Your task to perform on an android device: Go to accessibility settings Image 0: 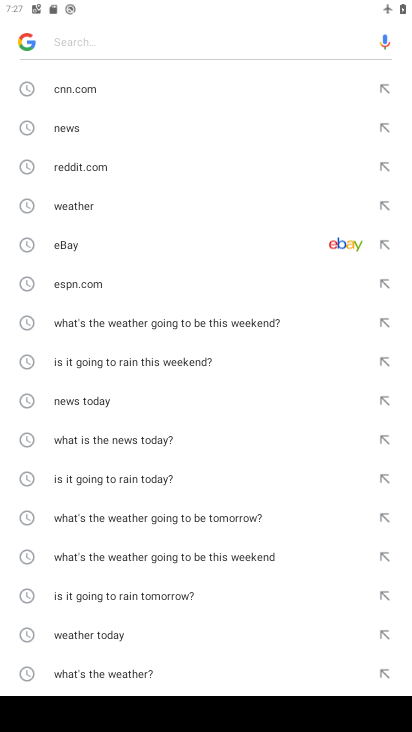
Step 0: press home button
Your task to perform on an android device: Go to accessibility settings Image 1: 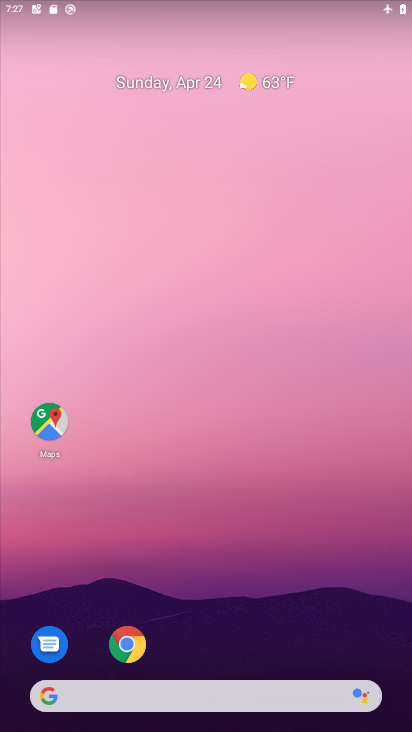
Step 1: drag from (221, 669) to (241, 104)
Your task to perform on an android device: Go to accessibility settings Image 2: 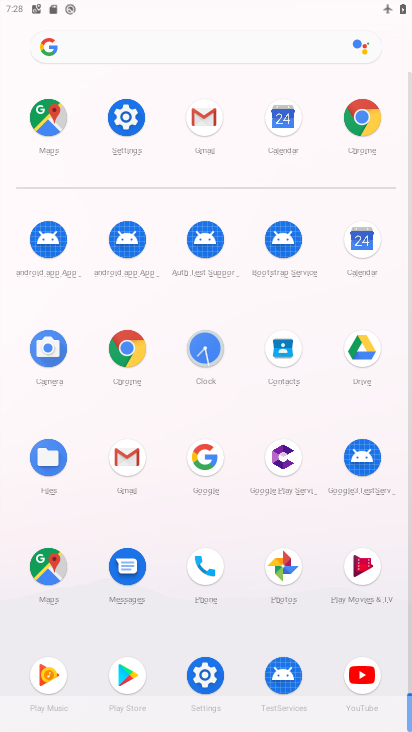
Step 2: click (201, 662)
Your task to perform on an android device: Go to accessibility settings Image 3: 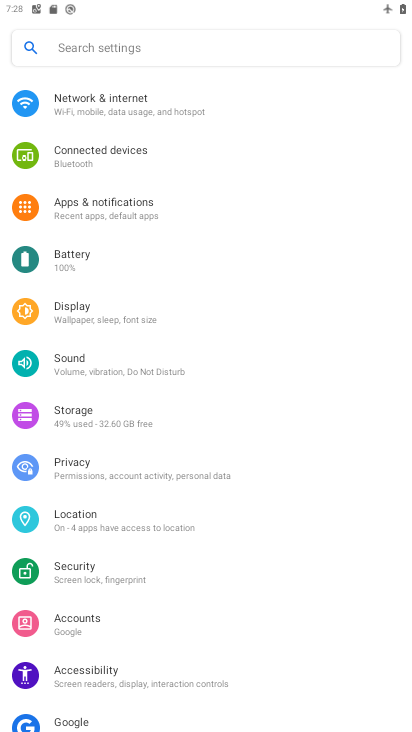
Step 3: click (127, 665)
Your task to perform on an android device: Go to accessibility settings Image 4: 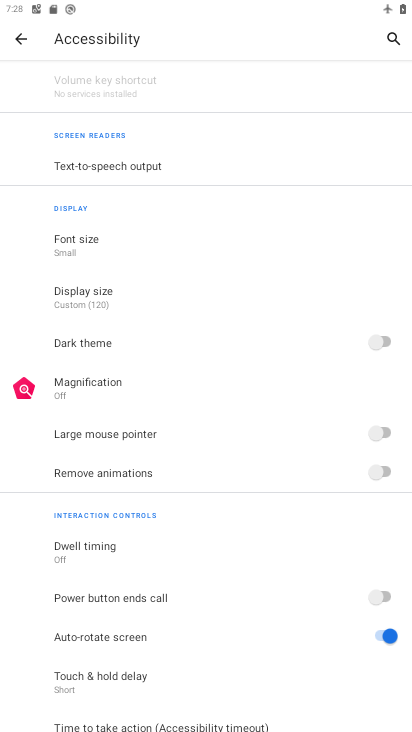
Step 4: task complete